Your task to perform on an android device: turn on javascript in the chrome app Image 0: 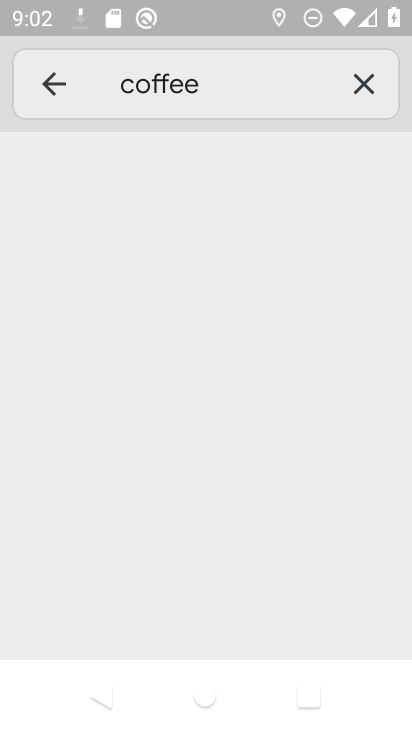
Step 0: press home button
Your task to perform on an android device: turn on javascript in the chrome app Image 1: 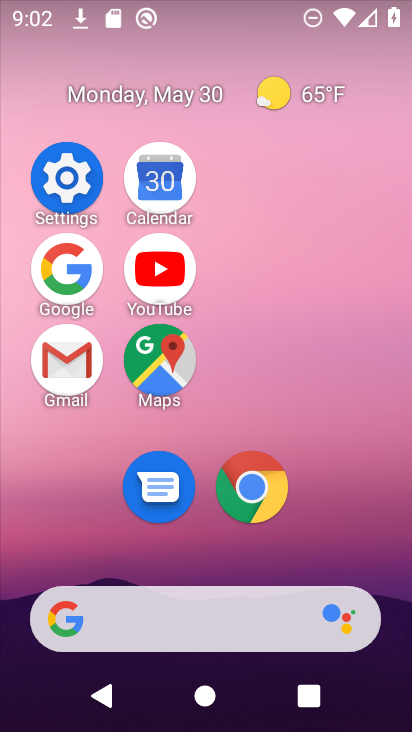
Step 1: click (253, 492)
Your task to perform on an android device: turn on javascript in the chrome app Image 2: 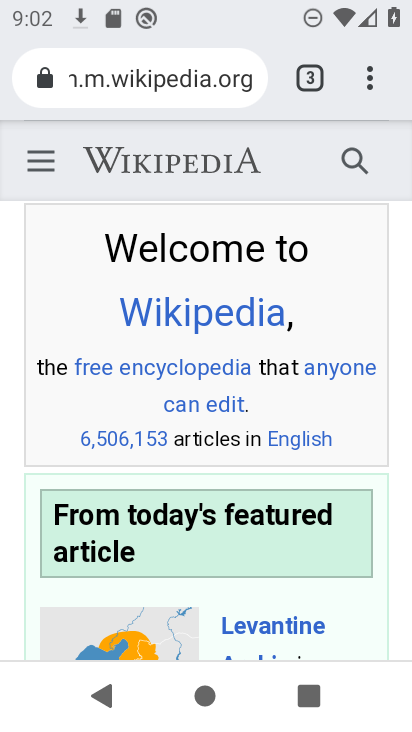
Step 2: click (355, 78)
Your task to perform on an android device: turn on javascript in the chrome app Image 3: 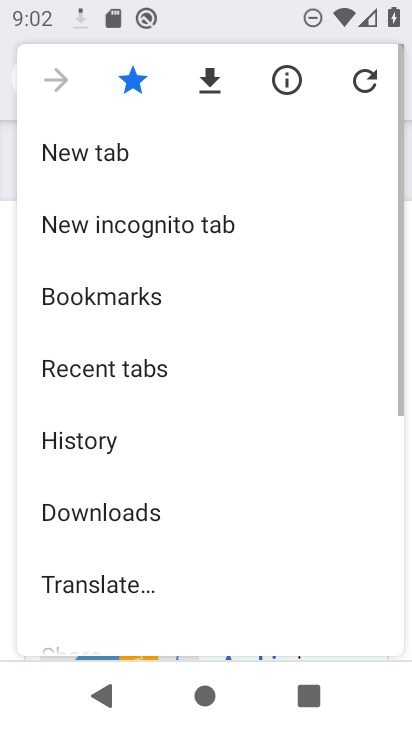
Step 3: drag from (194, 575) to (171, 0)
Your task to perform on an android device: turn on javascript in the chrome app Image 4: 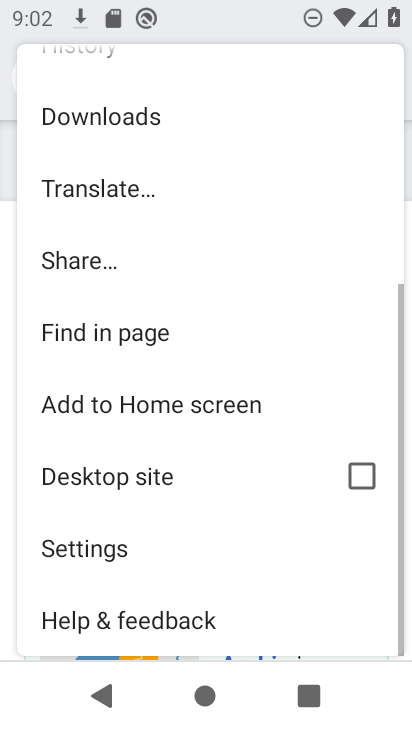
Step 4: click (146, 552)
Your task to perform on an android device: turn on javascript in the chrome app Image 5: 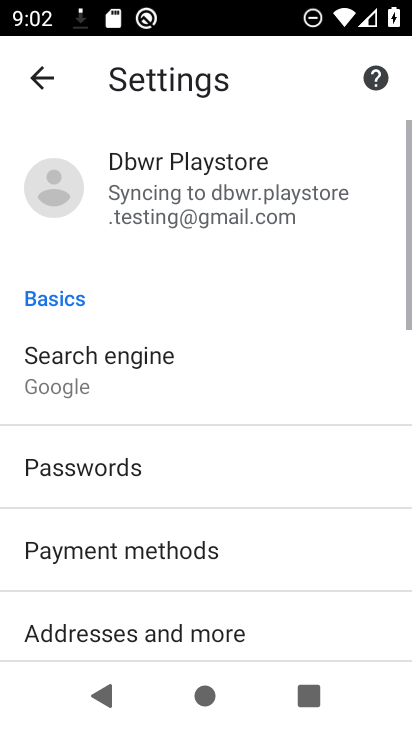
Step 5: drag from (146, 552) to (205, 84)
Your task to perform on an android device: turn on javascript in the chrome app Image 6: 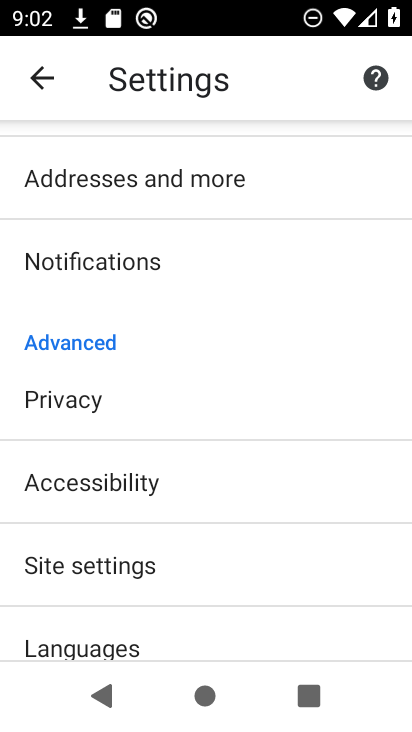
Step 6: click (200, 538)
Your task to perform on an android device: turn on javascript in the chrome app Image 7: 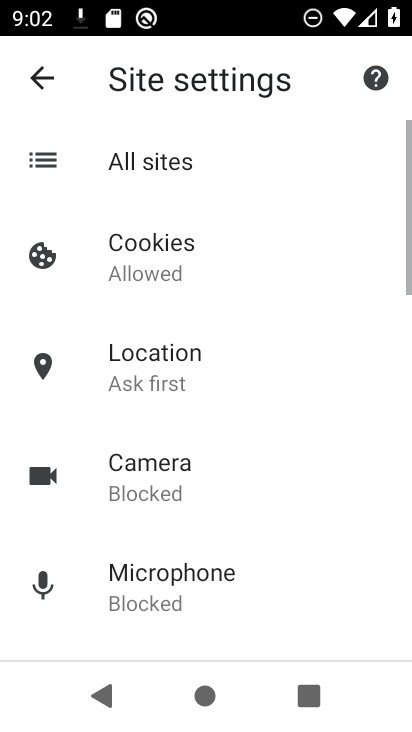
Step 7: drag from (200, 537) to (206, 142)
Your task to perform on an android device: turn on javascript in the chrome app Image 8: 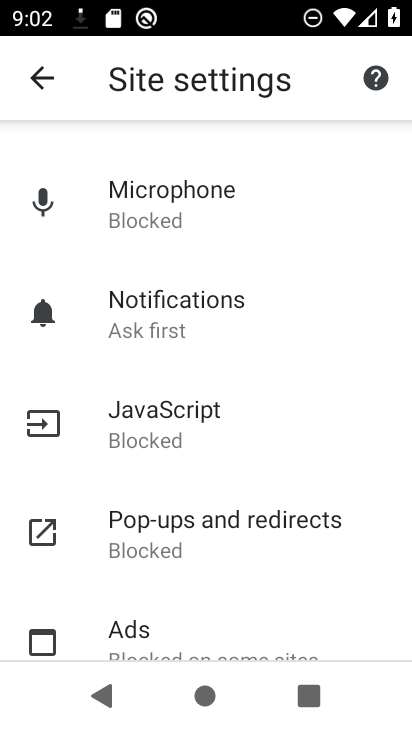
Step 8: click (267, 464)
Your task to perform on an android device: turn on javascript in the chrome app Image 9: 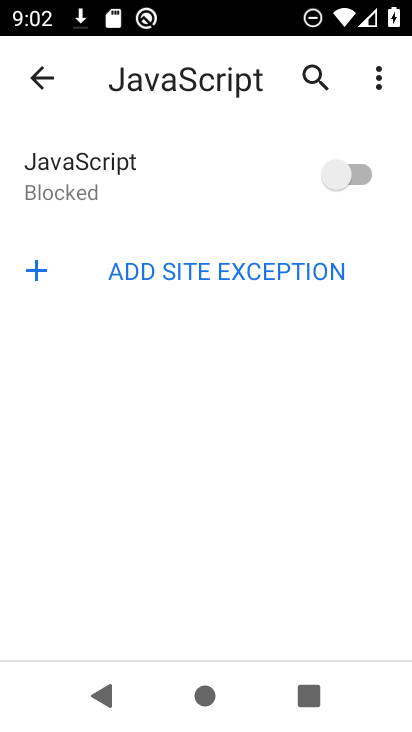
Step 9: click (359, 171)
Your task to perform on an android device: turn on javascript in the chrome app Image 10: 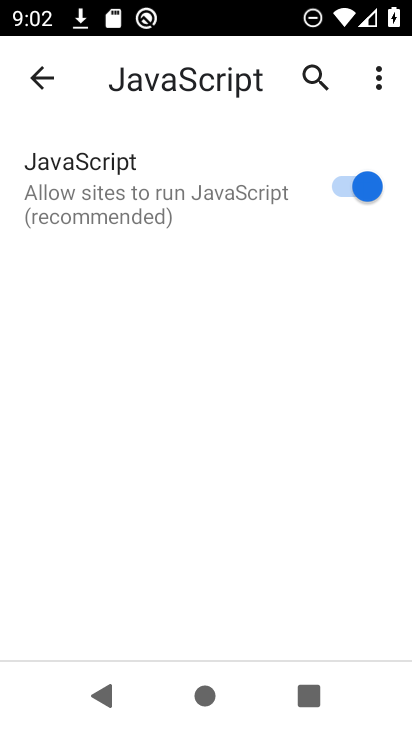
Step 10: task complete